Your task to perform on an android device: turn notification dots on Image 0: 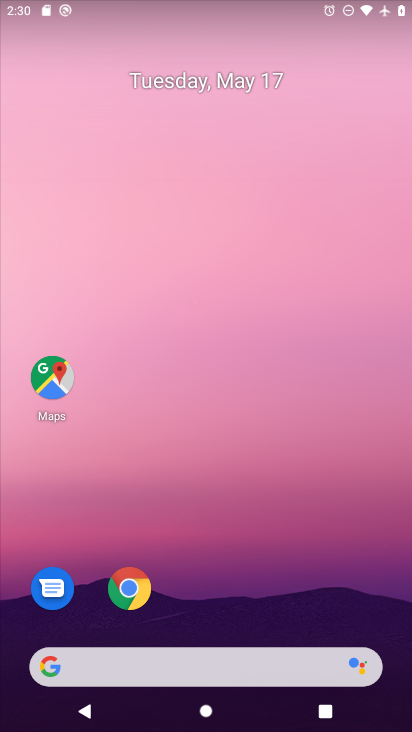
Step 0: drag from (188, 610) to (33, 66)
Your task to perform on an android device: turn notification dots on Image 1: 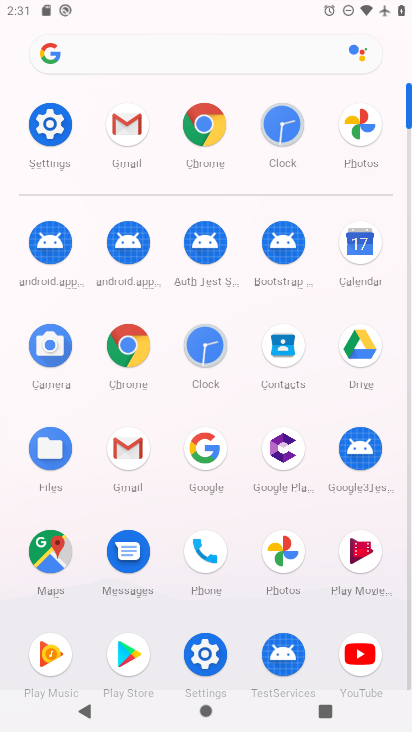
Step 1: click (204, 659)
Your task to perform on an android device: turn notification dots on Image 2: 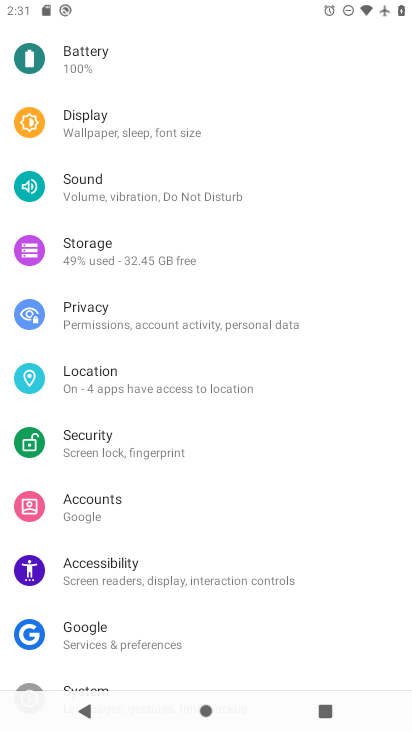
Step 2: drag from (147, 157) to (115, 356)
Your task to perform on an android device: turn notification dots on Image 3: 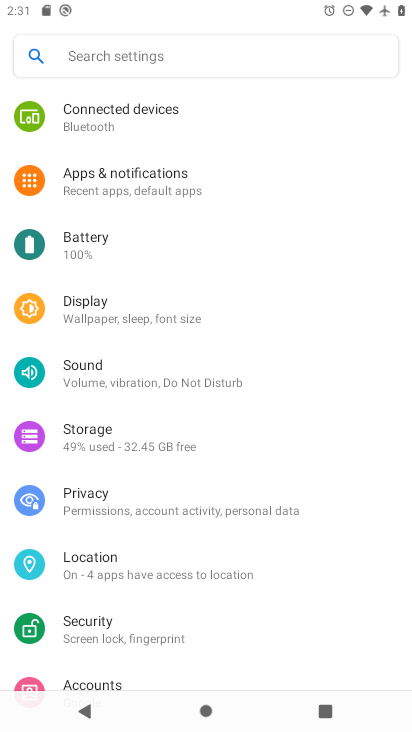
Step 3: drag from (167, 156) to (149, 243)
Your task to perform on an android device: turn notification dots on Image 4: 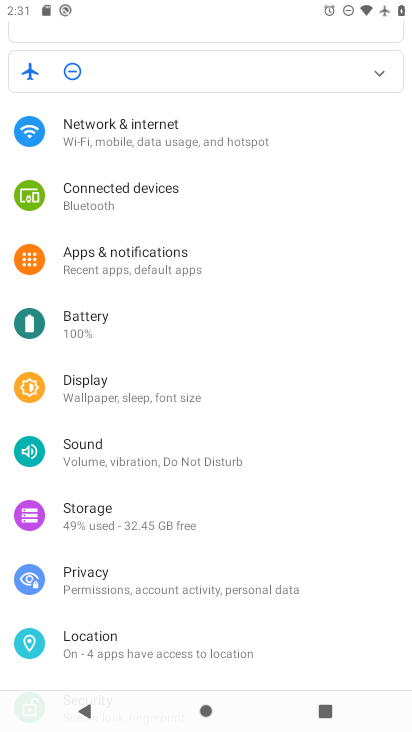
Step 4: click (114, 269)
Your task to perform on an android device: turn notification dots on Image 5: 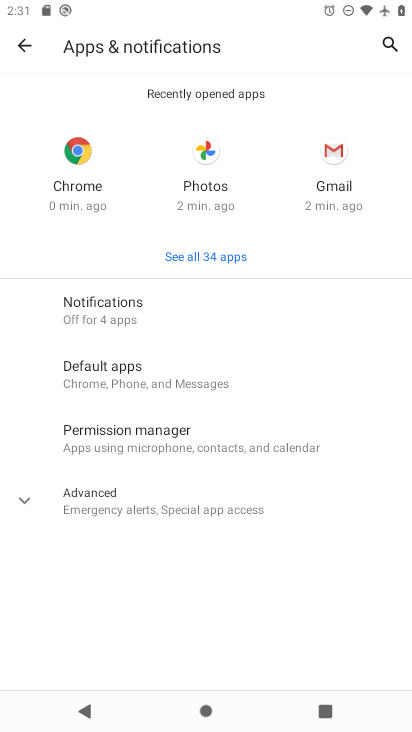
Step 5: click (133, 319)
Your task to perform on an android device: turn notification dots on Image 6: 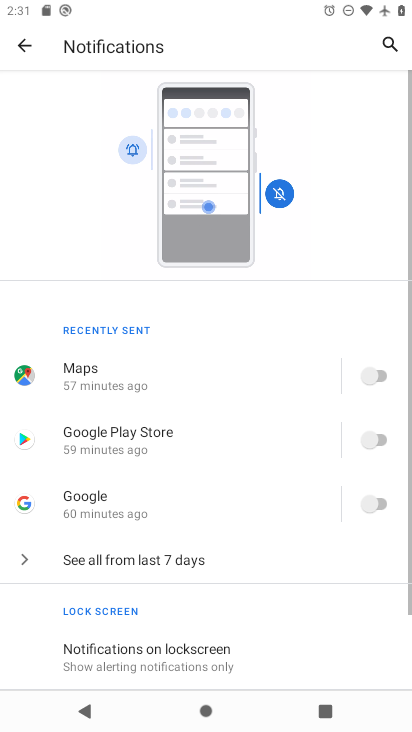
Step 6: drag from (147, 571) to (172, 330)
Your task to perform on an android device: turn notification dots on Image 7: 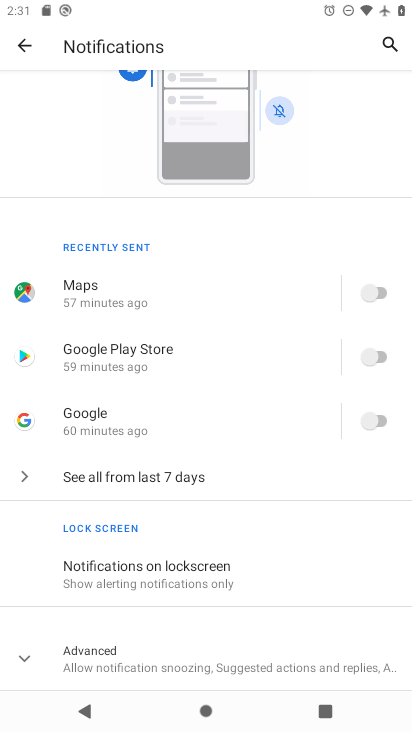
Step 7: click (139, 656)
Your task to perform on an android device: turn notification dots on Image 8: 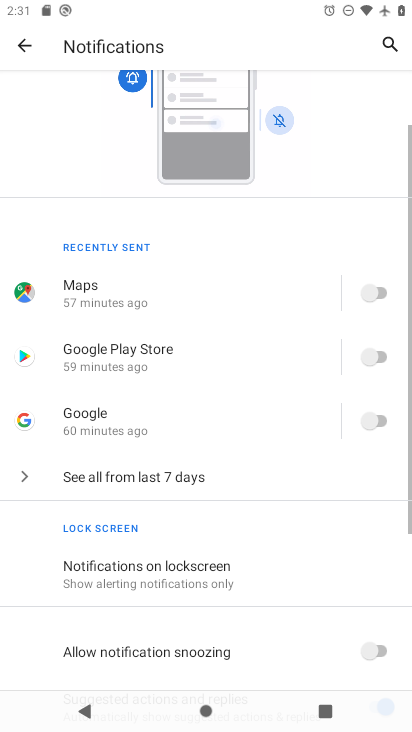
Step 8: task complete